Your task to perform on an android device: What's the weather? Image 0: 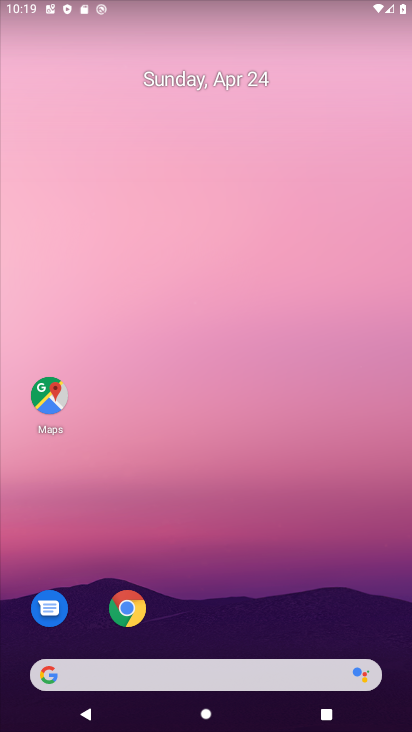
Step 0: drag from (251, 623) to (278, 135)
Your task to perform on an android device: What's the weather? Image 1: 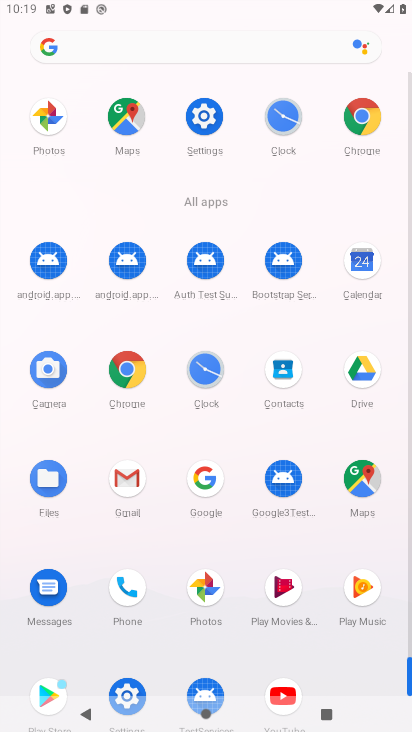
Step 1: click (125, 360)
Your task to perform on an android device: What's the weather? Image 2: 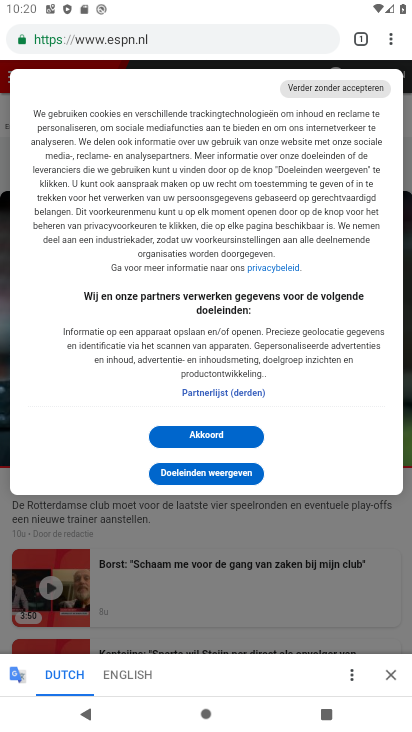
Step 2: press home button
Your task to perform on an android device: What's the weather? Image 3: 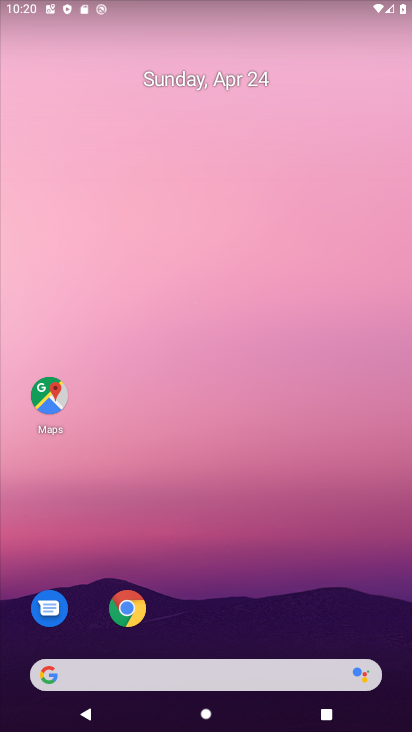
Step 3: drag from (232, 495) to (333, 69)
Your task to perform on an android device: What's the weather? Image 4: 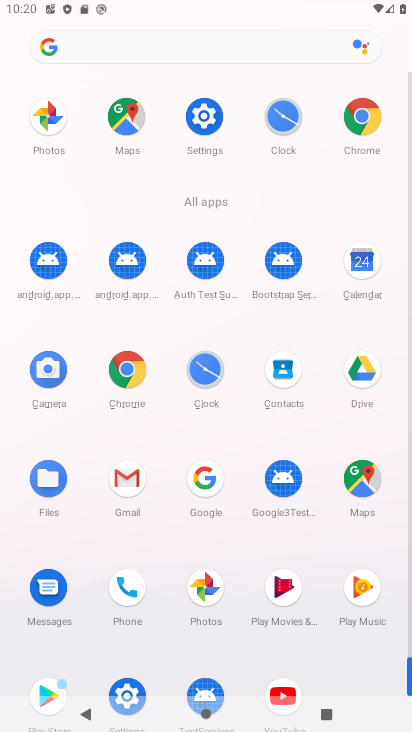
Step 4: click (123, 373)
Your task to perform on an android device: What's the weather? Image 5: 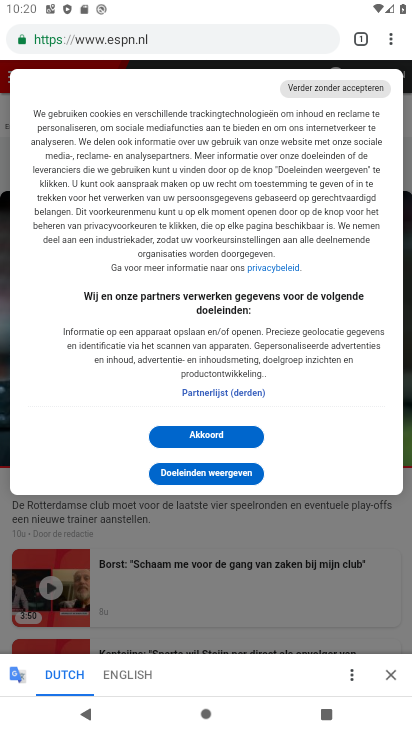
Step 5: click (123, 36)
Your task to perform on an android device: What's the weather? Image 6: 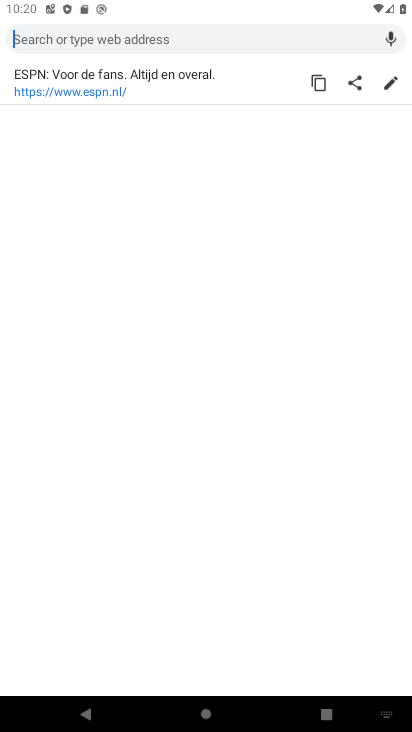
Step 6: type "weathr"
Your task to perform on an android device: What's the weather? Image 7: 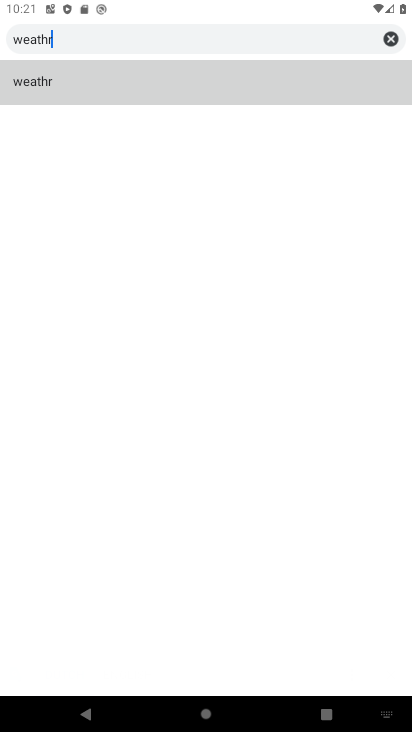
Step 7: click (108, 75)
Your task to perform on an android device: What's the weather? Image 8: 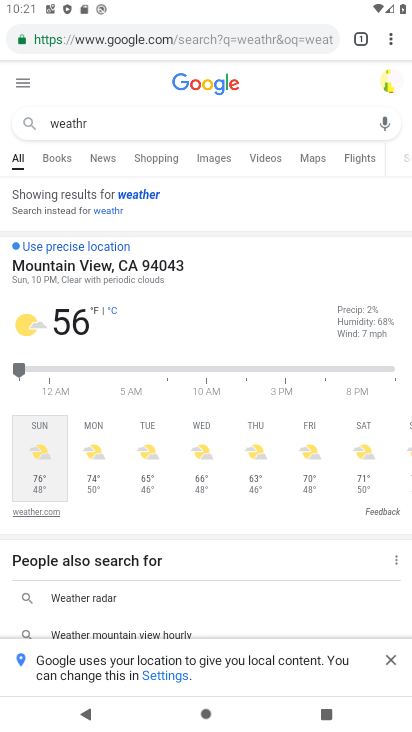
Step 8: task complete